Your task to perform on an android device: Go to display settings Image 0: 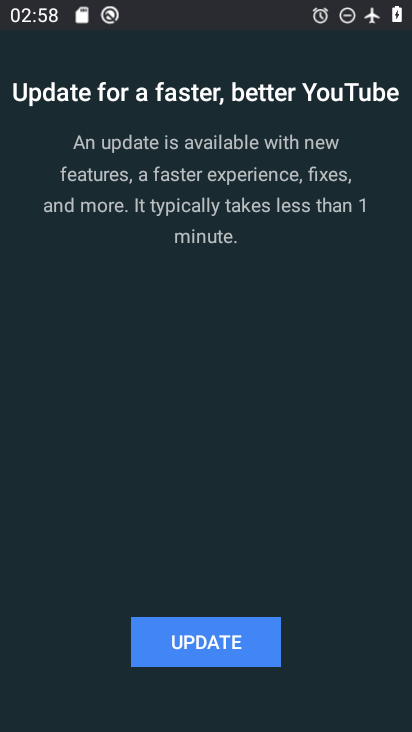
Step 0: press home button
Your task to perform on an android device: Go to display settings Image 1: 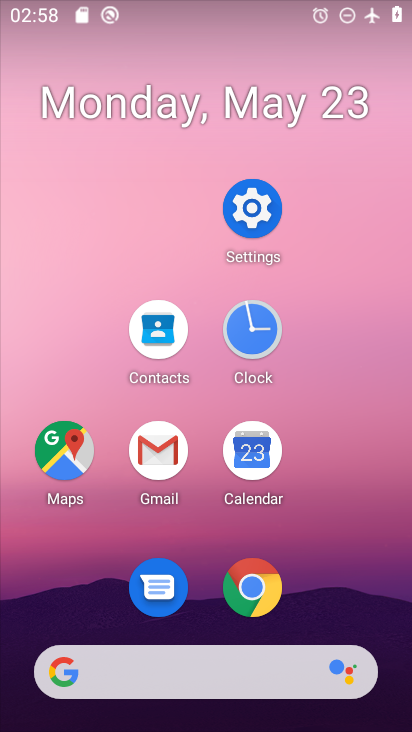
Step 1: click (253, 230)
Your task to perform on an android device: Go to display settings Image 2: 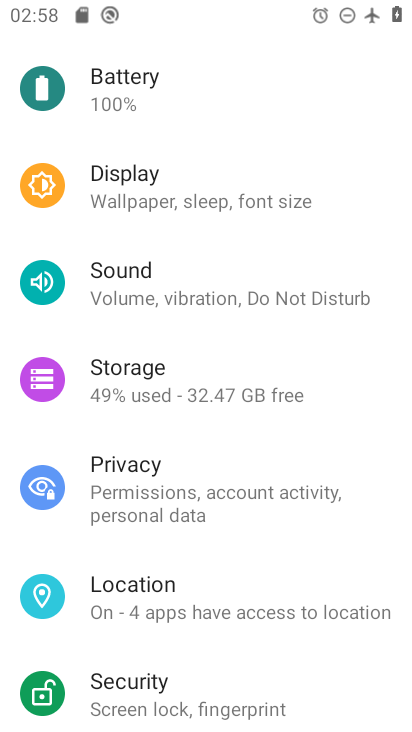
Step 2: click (196, 196)
Your task to perform on an android device: Go to display settings Image 3: 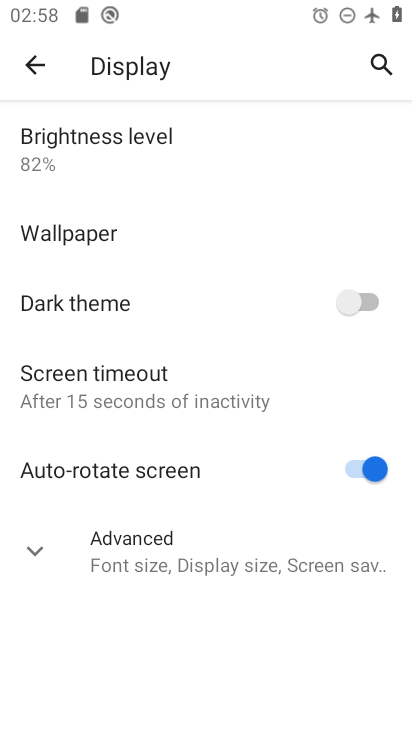
Step 3: task complete